Your task to perform on an android device: Show me popular games on the Play Store Image 0: 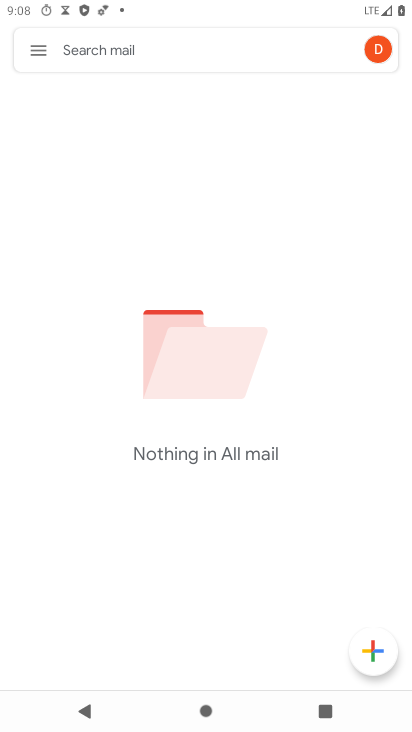
Step 0: press back button
Your task to perform on an android device: Show me popular games on the Play Store Image 1: 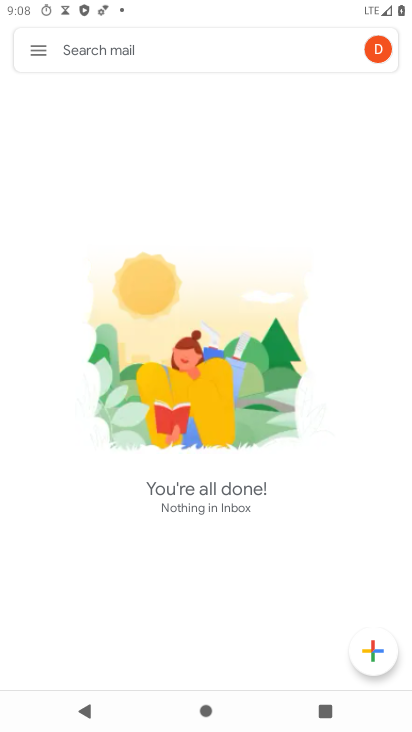
Step 1: press back button
Your task to perform on an android device: Show me popular games on the Play Store Image 2: 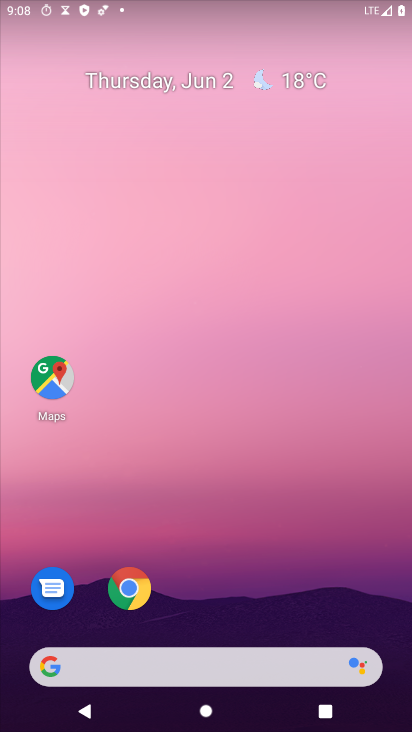
Step 2: drag from (294, 560) to (258, 72)
Your task to perform on an android device: Show me popular games on the Play Store Image 3: 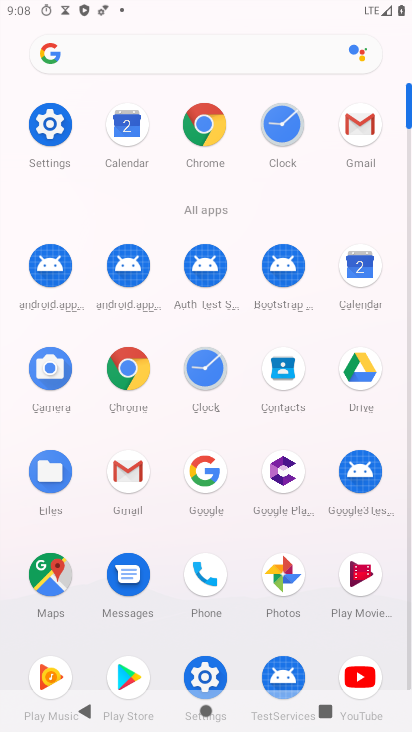
Step 3: click (127, 673)
Your task to perform on an android device: Show me popular games on the Play Store Image 4: 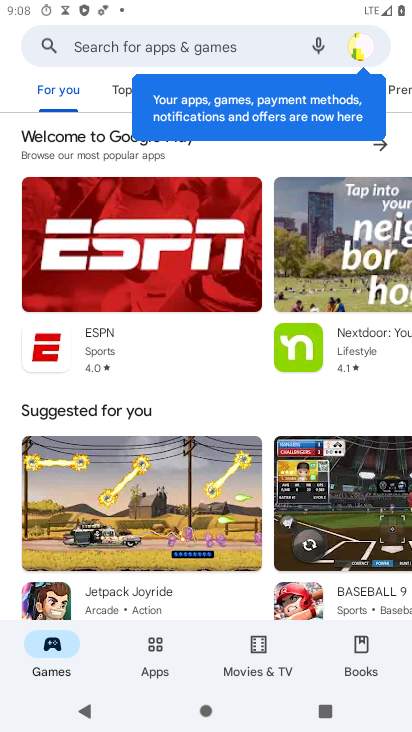
Step 4: drag from (192, 490) to (240, 106)
Your task to perform on an android device: Show me popular games on the Play Store Image 5: 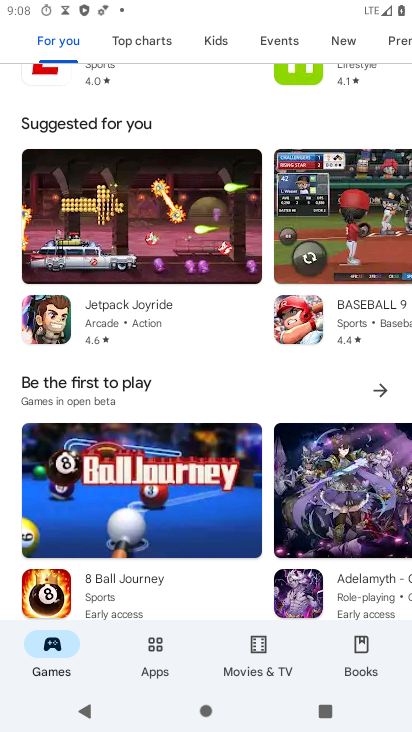
Step 5: drag from (205, 578) to (266, 170)
Your task to perform on an android device: Show me popular games on the Play Store Image 6: 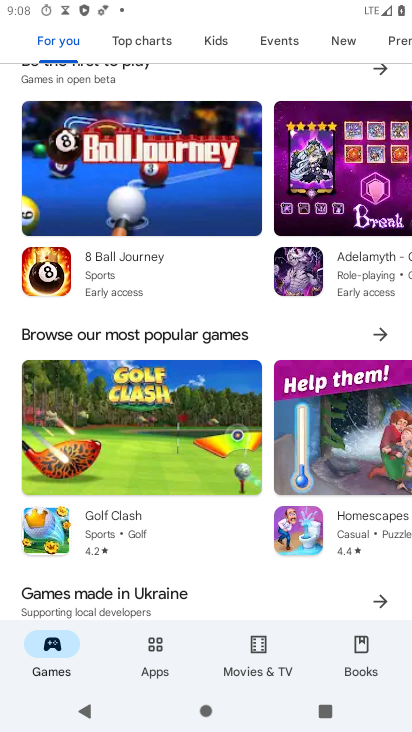
Step 6: click (375, 334)
Your task to perform on an android device: Show me popular games on the Play Store Image 7: 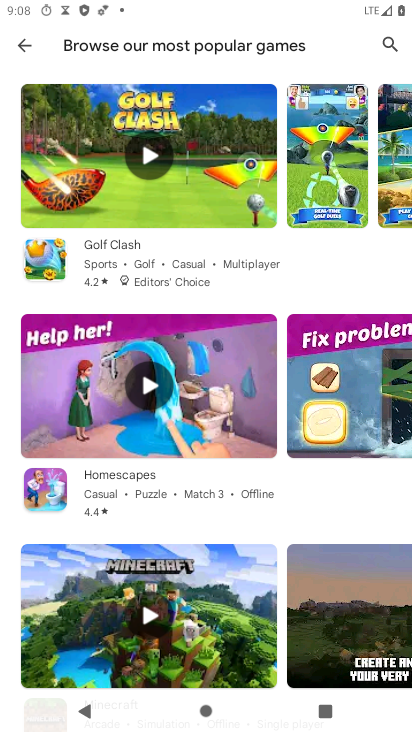
Step 7: task complete